Your task to perform on an android device: Open maps Image 0: 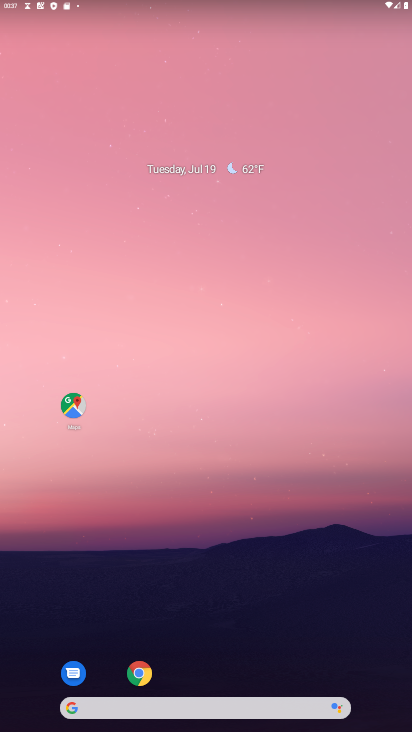
Step 0: drag from (267, 680) to (246, 239)
Your task to perform on an android device: Open maps Image 1: 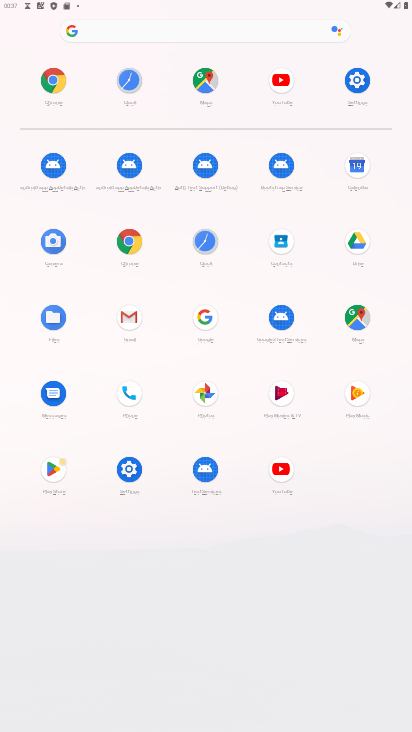
Step 1: click (357, 324)
Your task to perform on an android device: Open maps Image 2: 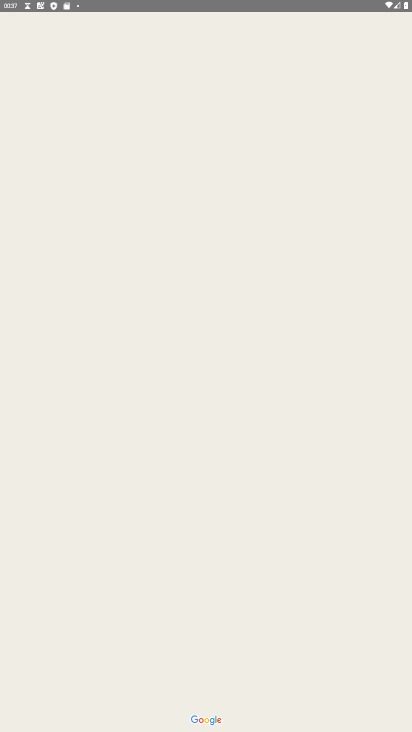
Step 2: task complete